Your task to perform on an android device: Open Google Chrome and click the shortcut for Amazon.com Image 0: 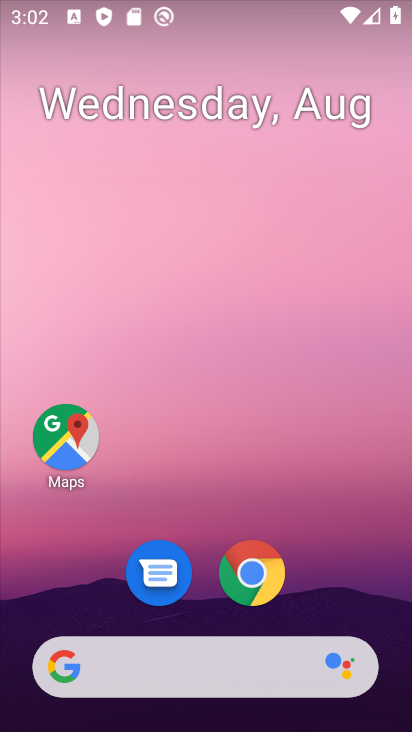
Step 0: click (261, 562)
Your task to perform on an android device: Open Google Chrome and click the shortcut for Amazon.com Image 1: 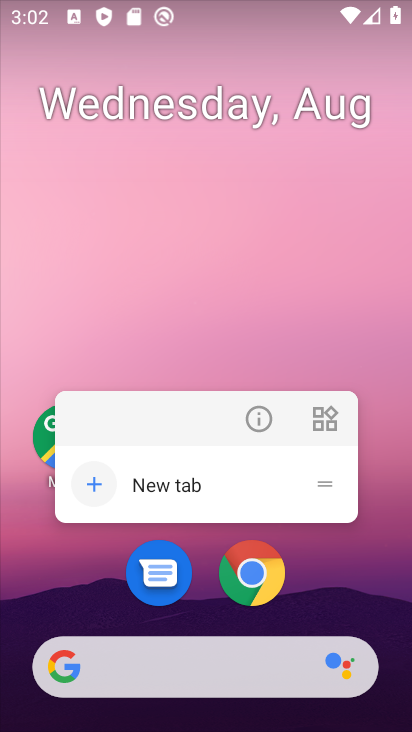
Step 1: click (249, 580)
Your task to perform on an android device: Open Google Chrome and click the shortcut for Amazon.com Image 2: 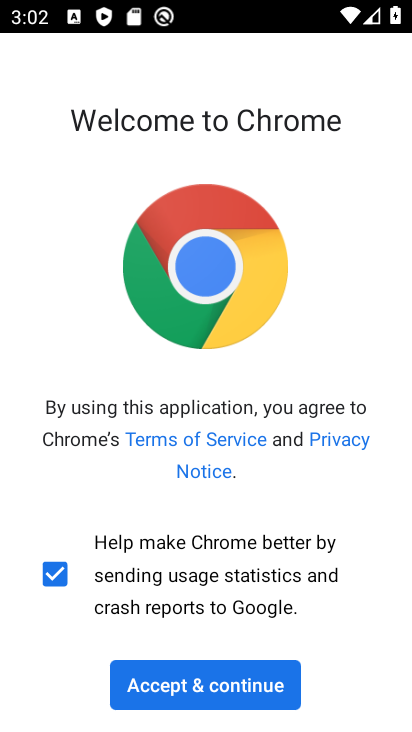
Step 2: click (245, 680)
Your task to perform on an android device: Open Google Chrome and click the shortcut for Amazon.com Image 3: 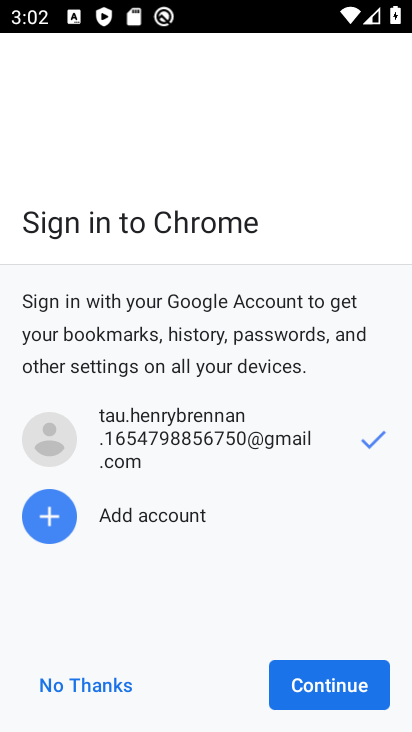
Step 3: click (309, 679)
Your task to perform on an android device: Open Google Chrome and click the shortcut for Amazon.com Image 4: 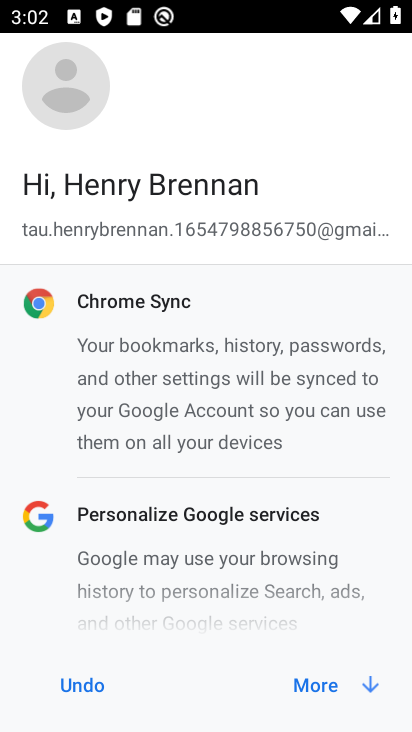
Step 4: click (311, 679)
Your task to perform on an android device: Open Google Chrome and click the shortcut for Amazon.com Image 5: 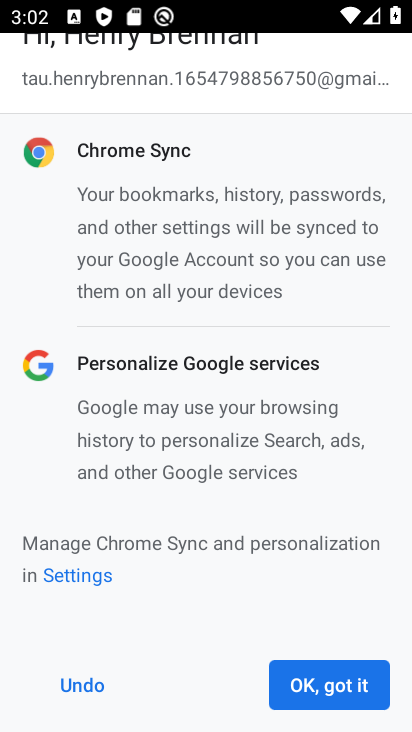
Step 5: click (316, 683)
Your task to perform on an android device: Open Google Chrome and click the shortcut for Amazon.com Image 6: 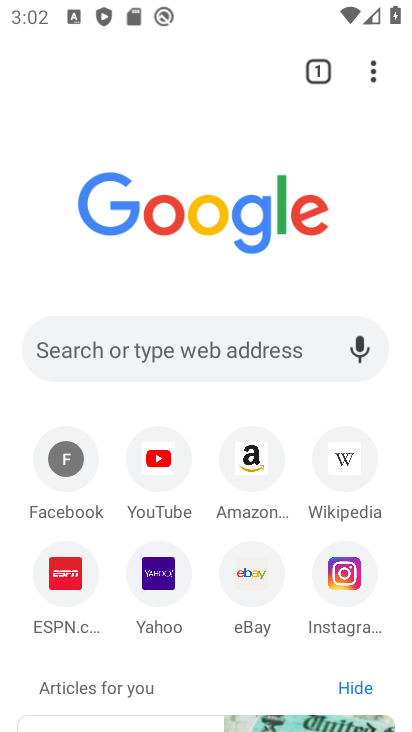
Step 6: click (256, 468)
Your task to perform on an android device: Open Google Chrome and click the shortcut for Amazon.com Image 7: 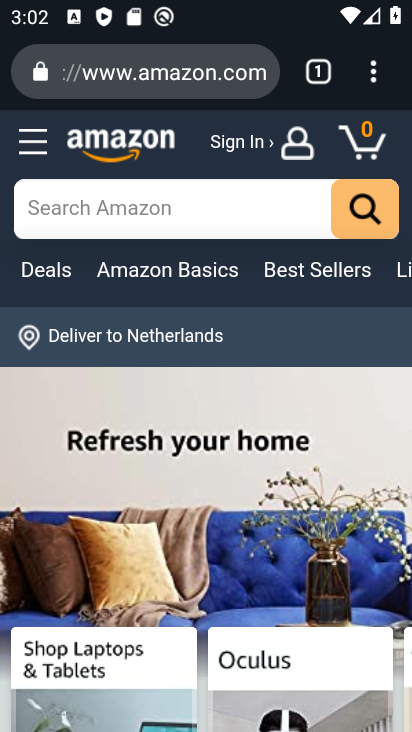
Step 7: task complete